Your task to perform on an android device: Go to display settings Image 0: 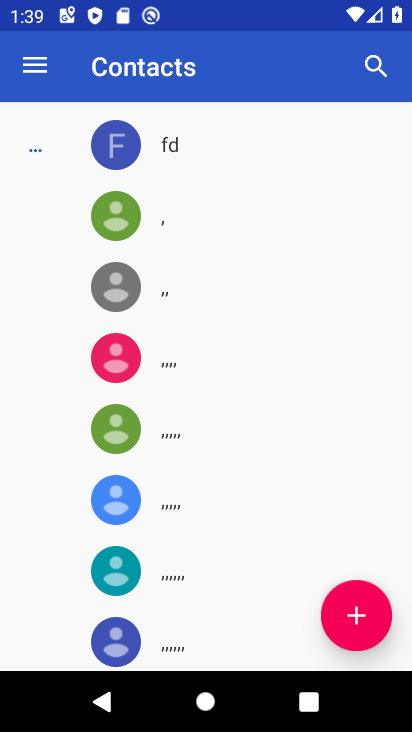
Step 0: press home button
Your task to perform on an android device: Go to display settings Image 1: 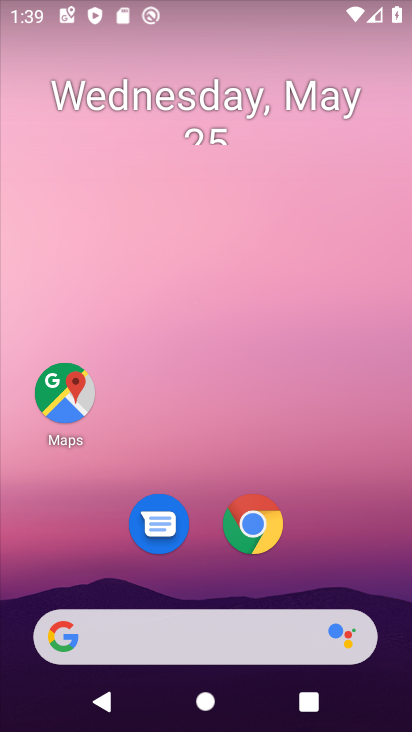
Step 1: drag from (255, 420) to (277, 0)
Your task to perform on an android device: Go to display settings Image 2: 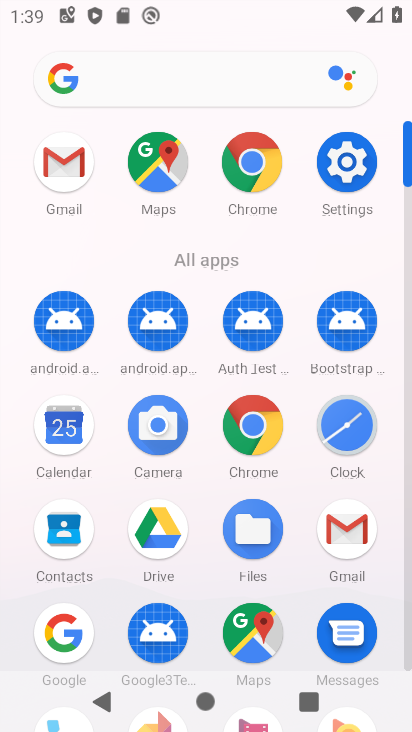
Step 2: click (353, 154)
Your task to perform on an android device: Go to display settings Image 3: 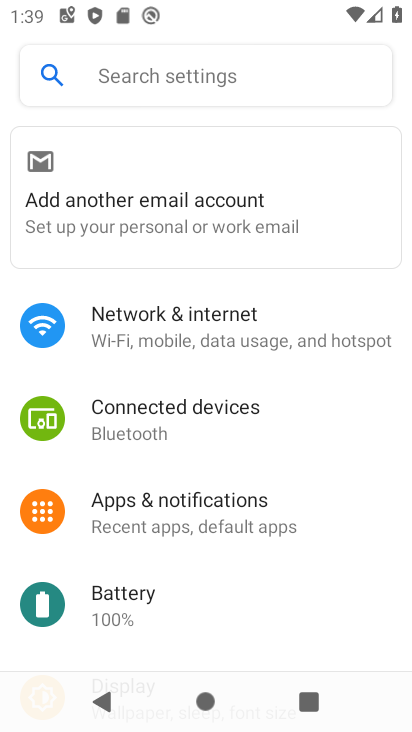
Step 3: drag from (188, 532) to (259, 96)
Your task to perform on an android device: Go to display settings Image 4: 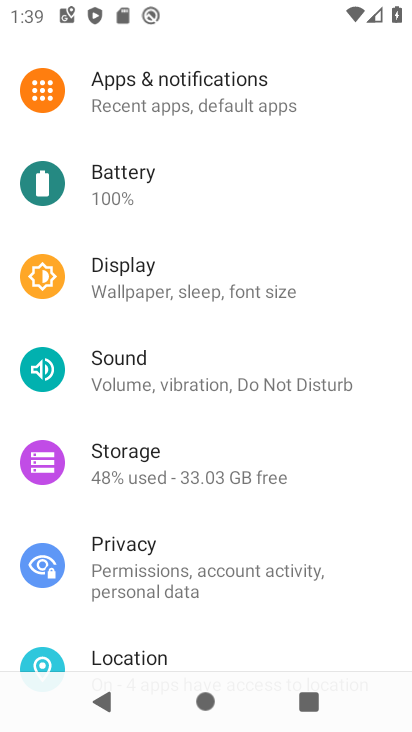
Step 4: click (206, 284)
Your task to perform on an android device: Go to display settings Image 5: 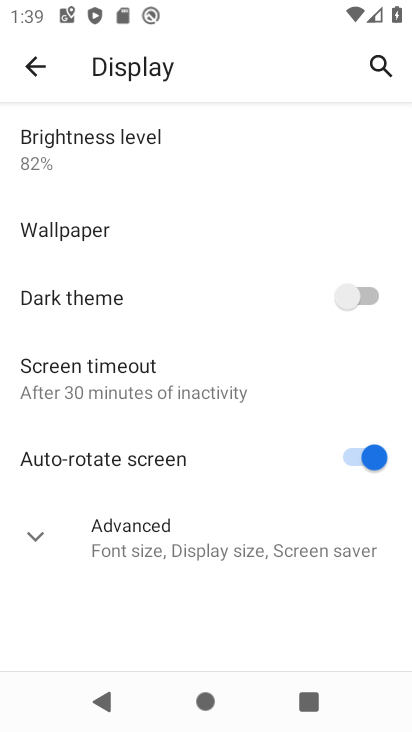
Step 5: task complete